Your task to perform on an android device: Go to accessibility settings Image 0: 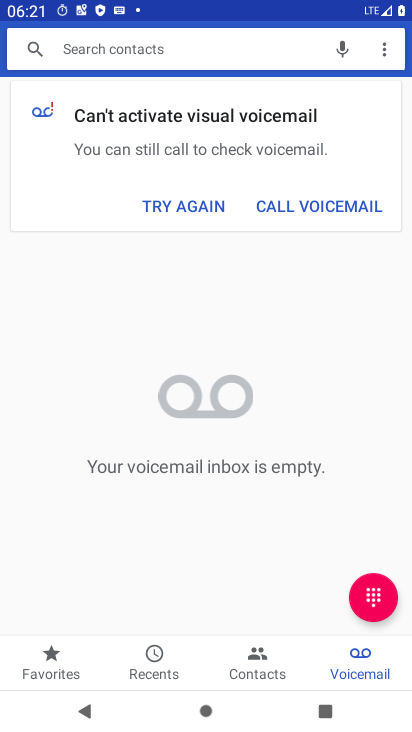
Step 0: press home button
Your task to perform on an android device: Go to accessibility settings Image 1: 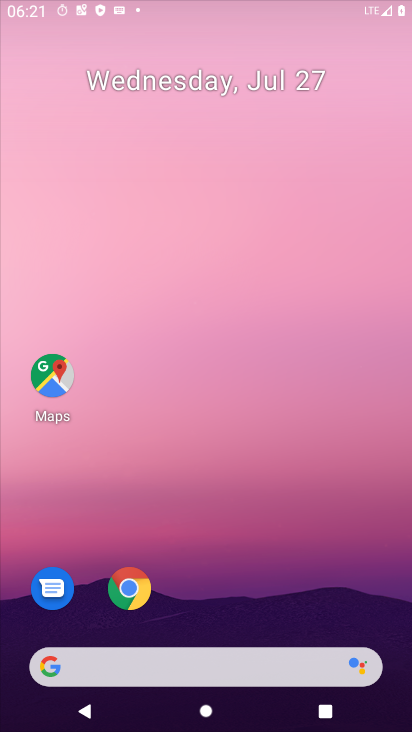
Step 1: drag from (287, 551) to (329, 5)
Your task to perform on an android device: Go to accessibility settings Image 2: 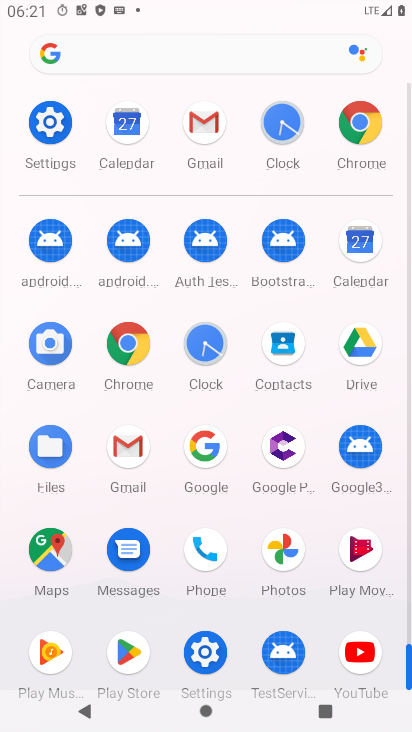
Step 2: click (55, 120)
Your task to perform on an android device: Go to accessibility settings Image 3: 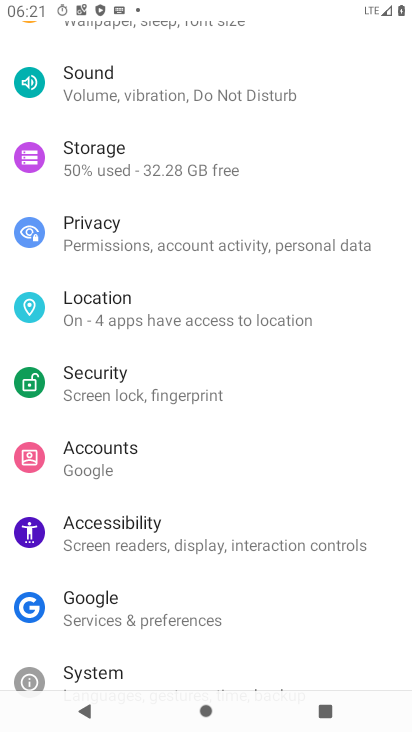
Step 3: click (160, 523)
Your task to perform on an android device: Go to accessibility settings Image 4: 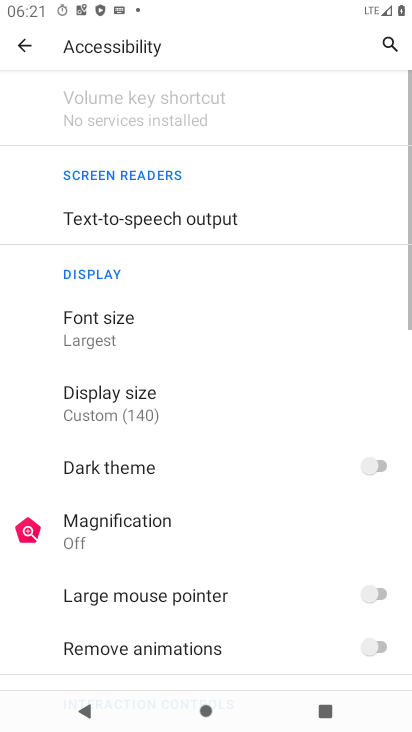
Step 4: task complete